Your task to perform on an android device: turn off picture-in-picture Image 0: 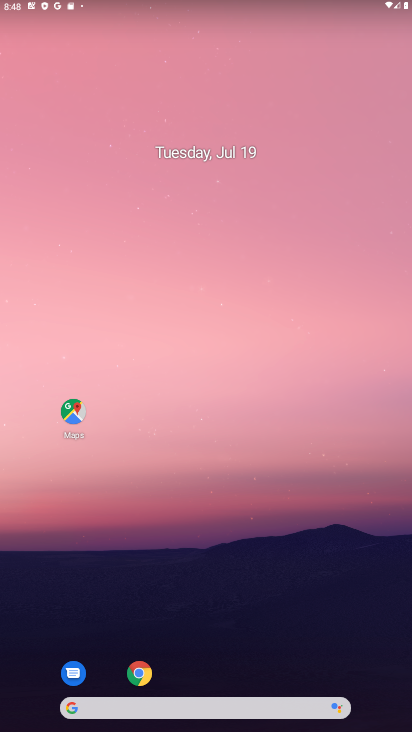
Step 0: drag from (237, 659) to (163, 6)
Your task to perform on an android device: turn off picture-in-picture Image 1: 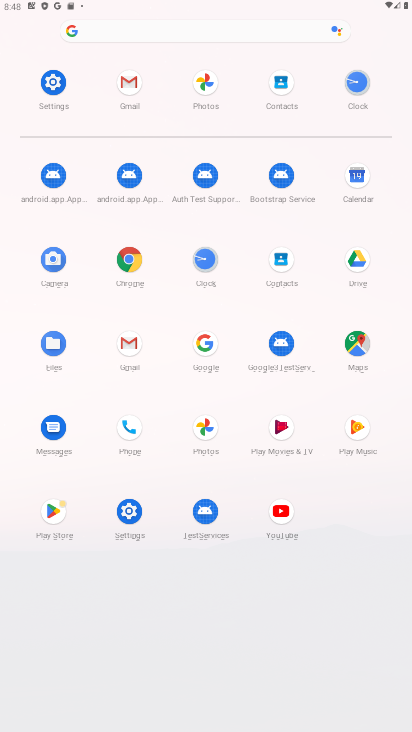
Step 1: click (68, 93)
Your task to perform on an android device: turn off picture-in-picture Image 2: 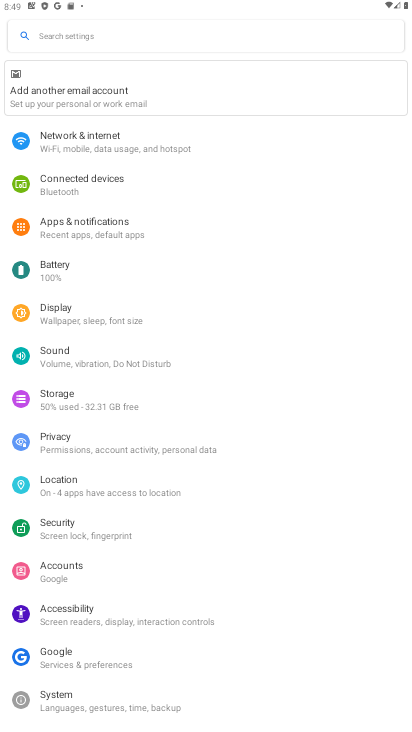
Step 2: task complete